Your task to perform on an android device: see tabs open on other devices in the chrome app Image 0: 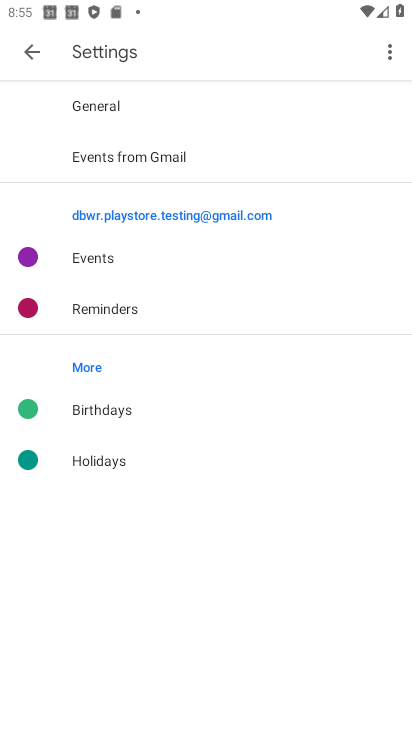
Step 0: press home button
Your task to perform on an android device: see tabs open on other devices in the chrome app Image 1: 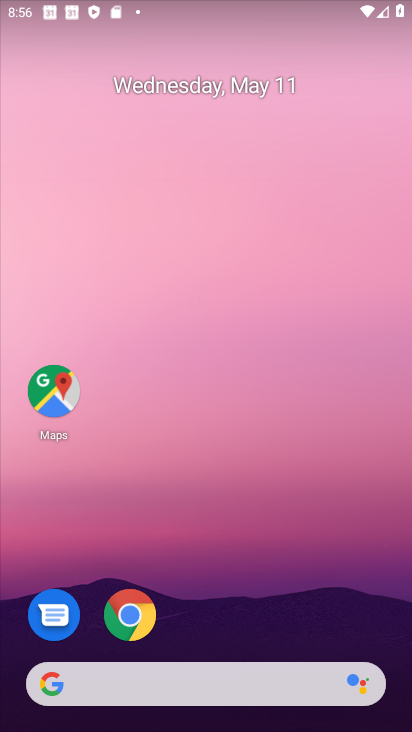
Step 1: click (119, 618)
Your task to perform on an android device: see tabs open on other devices in the chrome app Image 2: 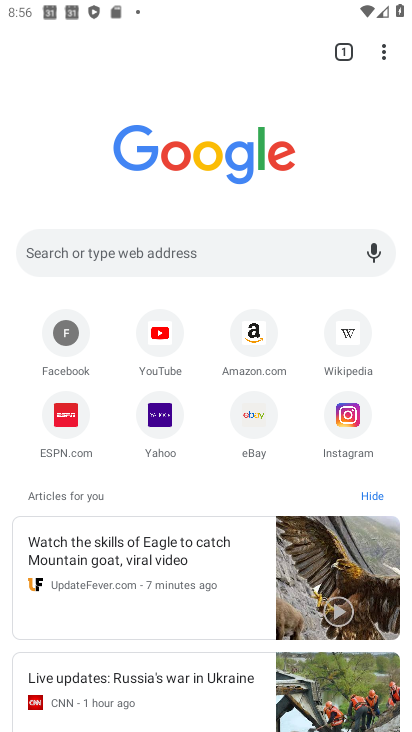
Step 2: task complete